Your task to perform on an android device: Open network settings Image 0: 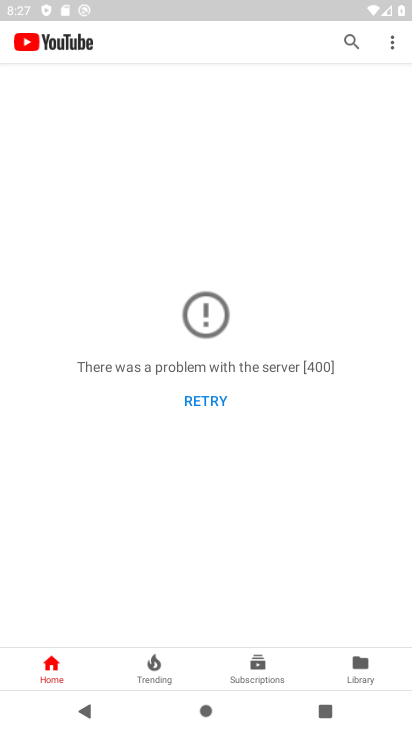
Step 0: press home button
Your task to perform on an android device: Open network settings Image 1: 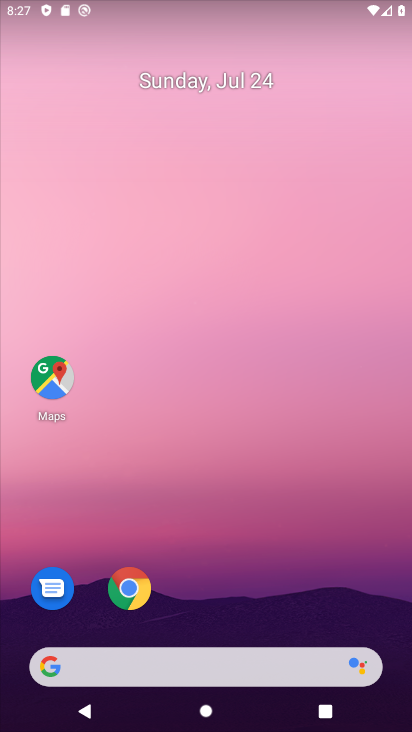
Step 1: drag from (238, 542) to (227, 1)
Your task to perform on an android device: Open network settings Image 2: 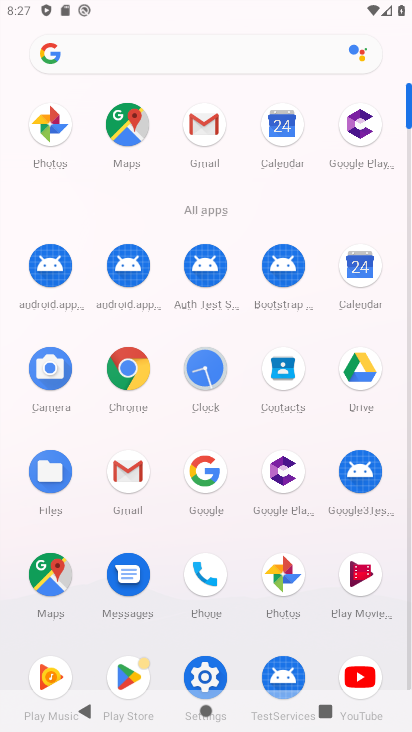
Step 2: click (201, 667)
Your task to perform on an android device: Open network settings Image 3: 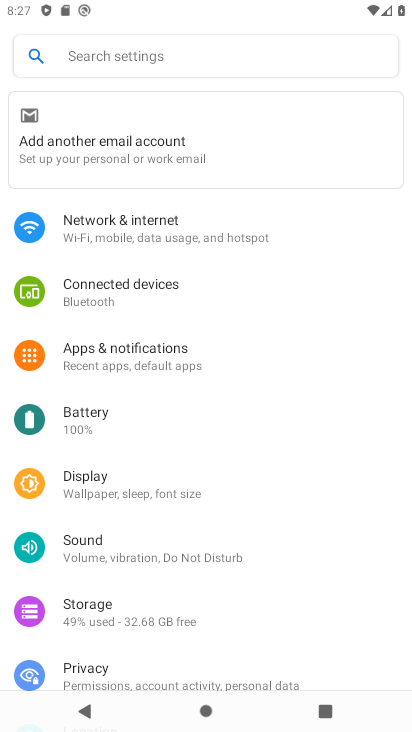
Step 3: click (242, 231)
Your task to perform on an android device: Open network settings Image 4: 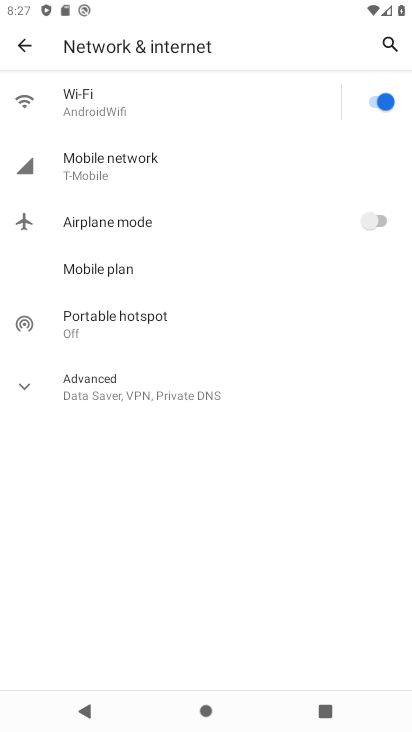
Step 4: task complete